Your task to perform on an android device: empty trash in google photos Image 0: 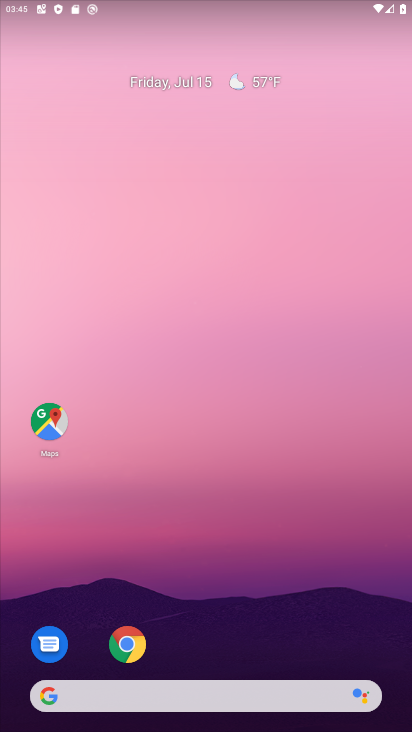
Step 0: drag from (358, 655) to (241, 58)
Your task to perform on an android device: empty trash in google photos Image 1: 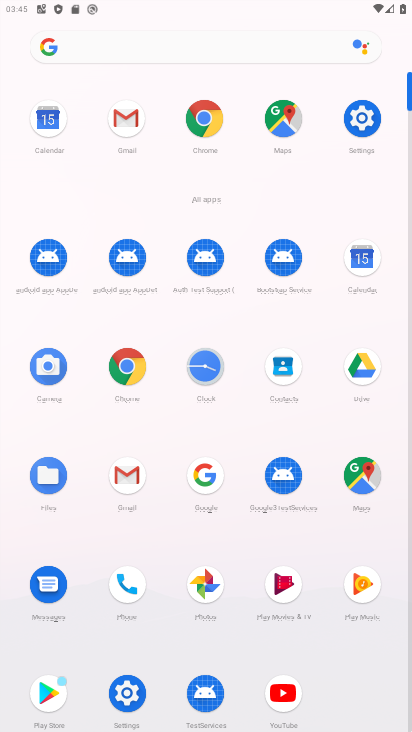
Step 1: click (126, 107)
Your task to perform on an android device: empty trash in google photos Image 2: 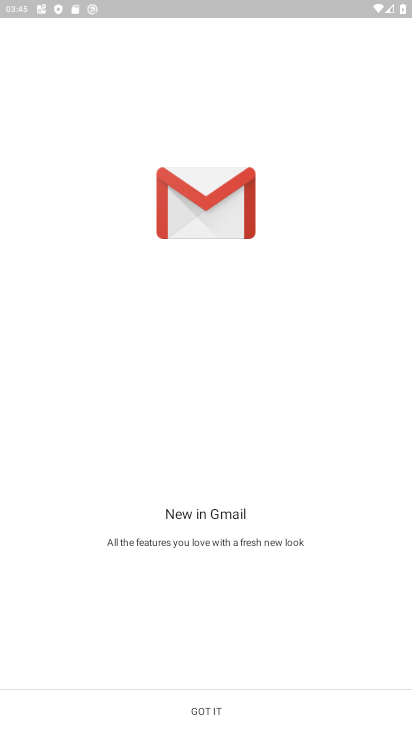
Step 2: press back button
Your task to perform on an android device: empty trash in google photos Image 3: 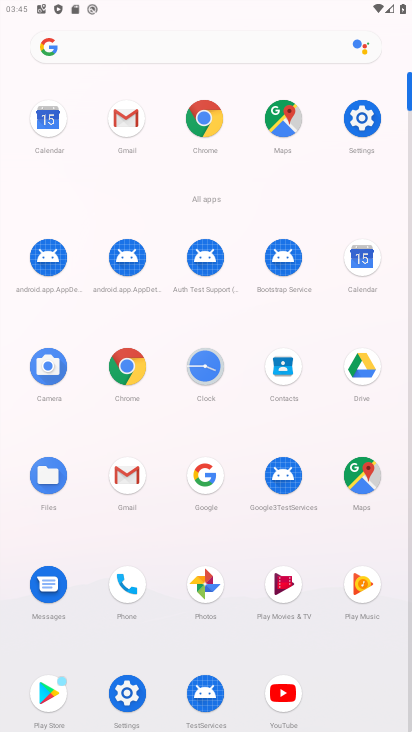
Step 3: click (203, 567)
Your task to perform on an android device: empty trash in google photos Image 4: 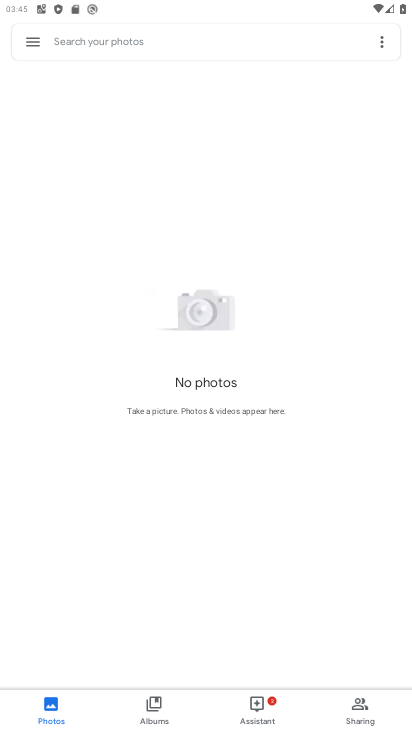
Step 4: click (33, 41)
Your task to perform on an android device: empty trash in google photos Image 5: 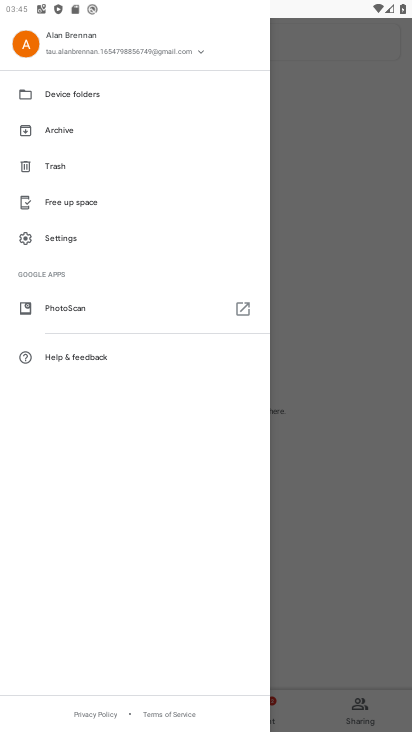
Step 5: click (72, 173)
Your task to perform on an android device: empty trash in google photos Image 6: 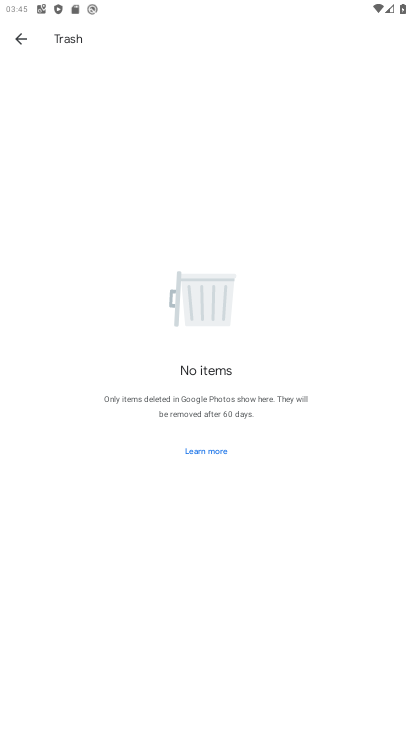
Step 6: task complete